Your task to perform on an android device: toggle javascript in the chrome app Image 0: 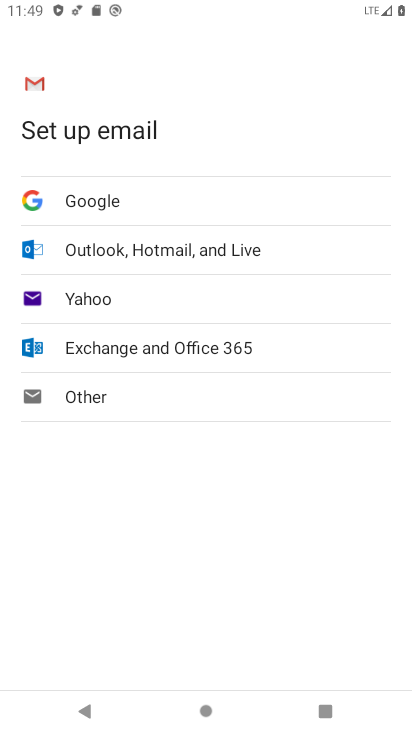
Step 0: press home button
Your task to perform on an android device: toggle javascript in the chrome app Image 1: 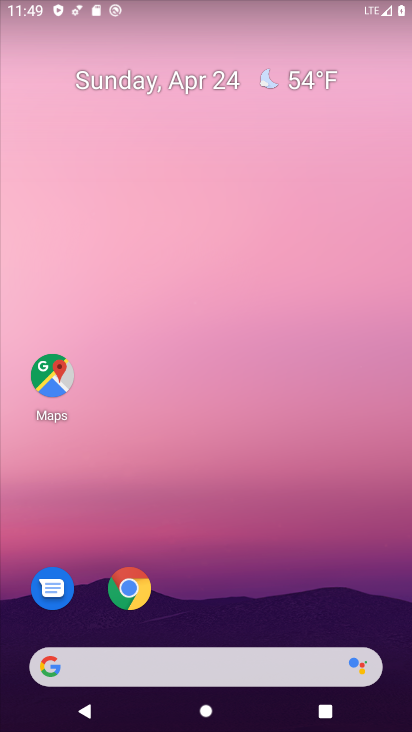
Step 1: drag from (213, 640) to (216, 10)
Your task to perform on an android device: toggle javascript in the chrome app Image 2: 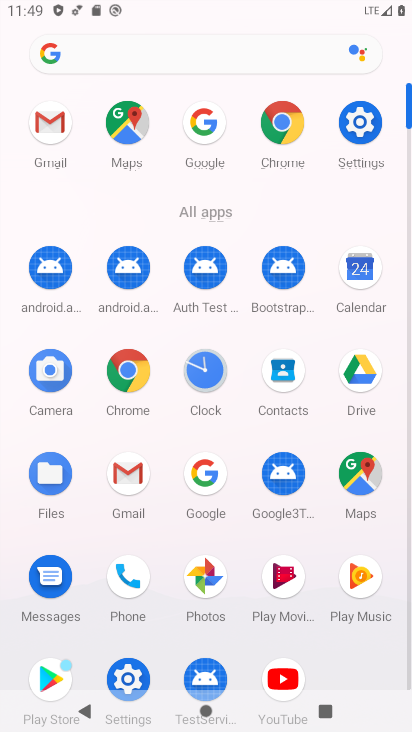
Step 2: click (287, 131)
Your task to perform on an android device: toggle javascript in the chrome app Image 3: 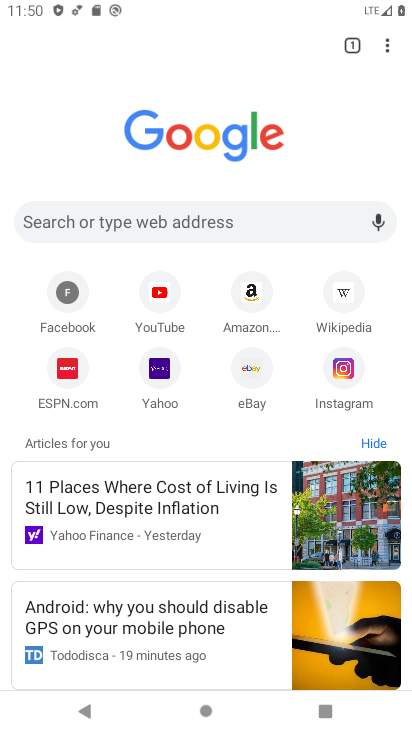
Step 3: click (380, 52)
Your task to perform on an android device: toggle javascript in the chrome app Image 4: 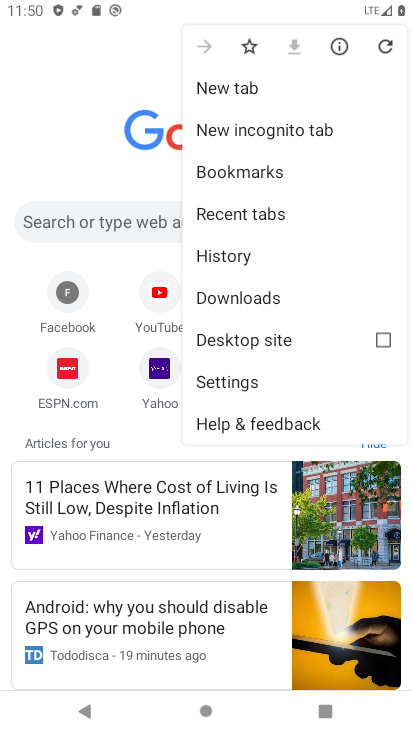
Step 4: click (234, 374)
Your task to perform on an android device: toggle javascript in the chrome app Image 5: 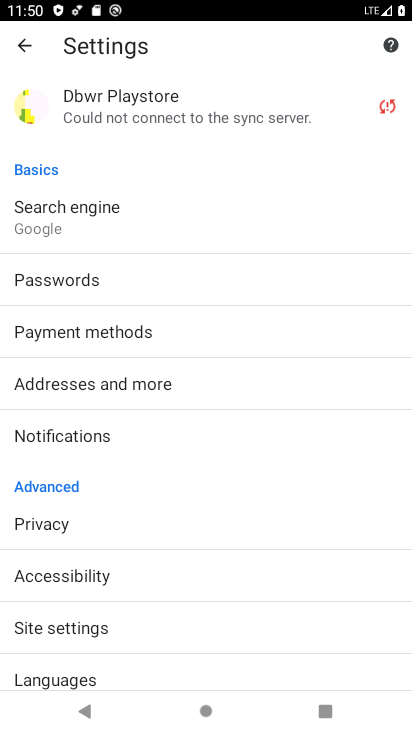
Step 5: click (61, 622)
Your task to perform on an android device: toggle javascript in the chrome app Image 6: 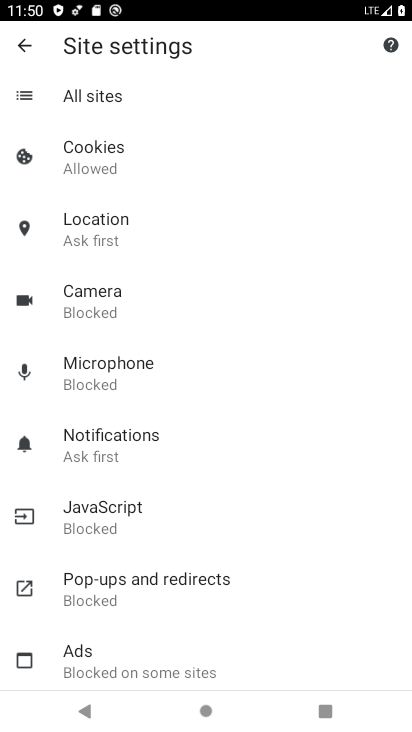
Step 6: click (82, 533)
Your task to perform on an android device: toggle javascript in the chrome app Image 7: 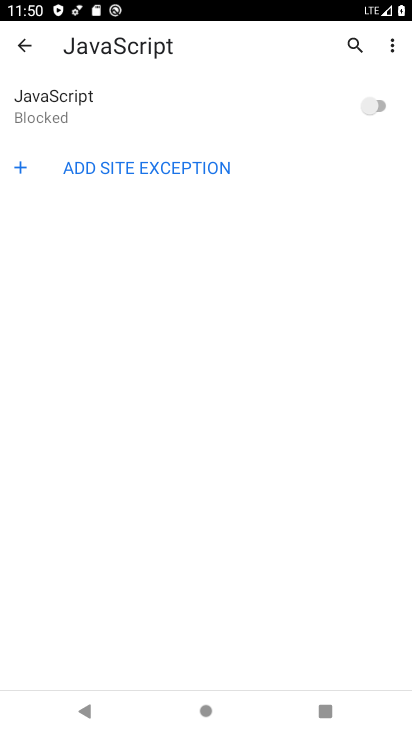
Step 7: click (378, 102)
Your task to perform on an android device: toggle javascript in the chrome app Image 8: 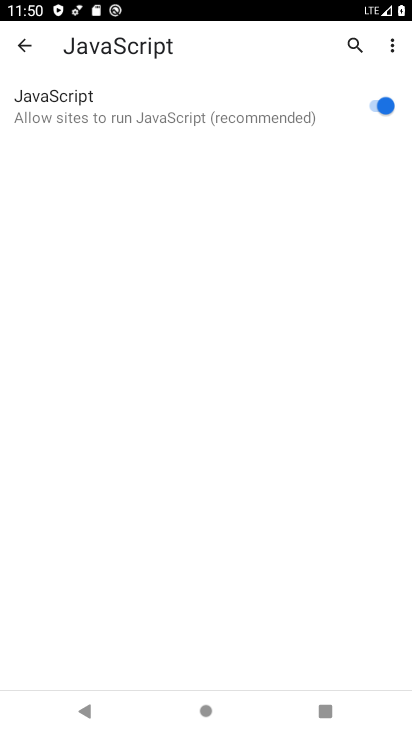
Step 8: task complete